Your task to perform on an android device: install app "Google Sheets" Image 0: 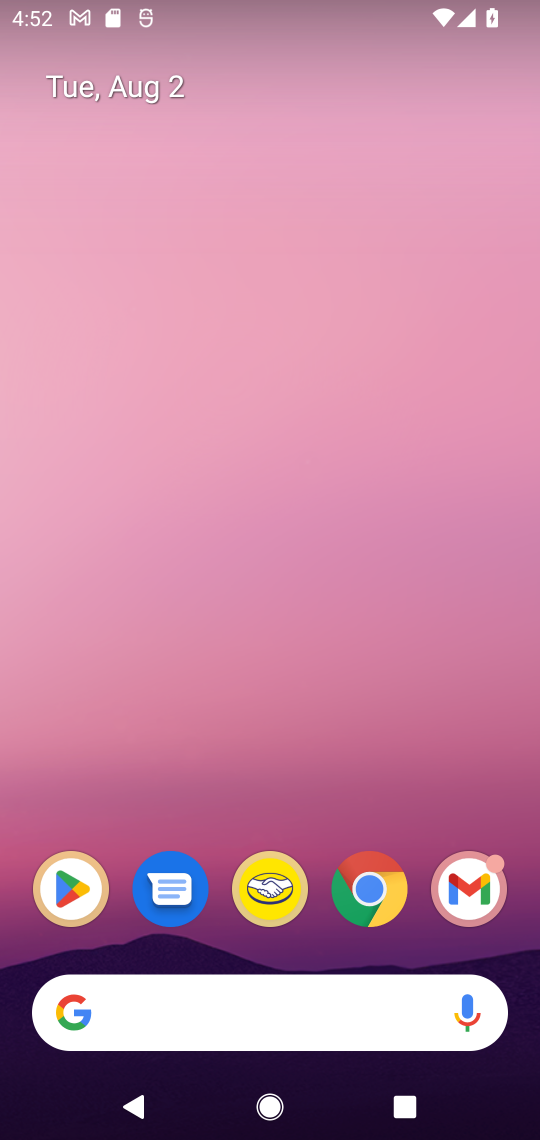
Step 0: press home button
Your task to perform on an android device: install app "Google Sheets" Image 1: 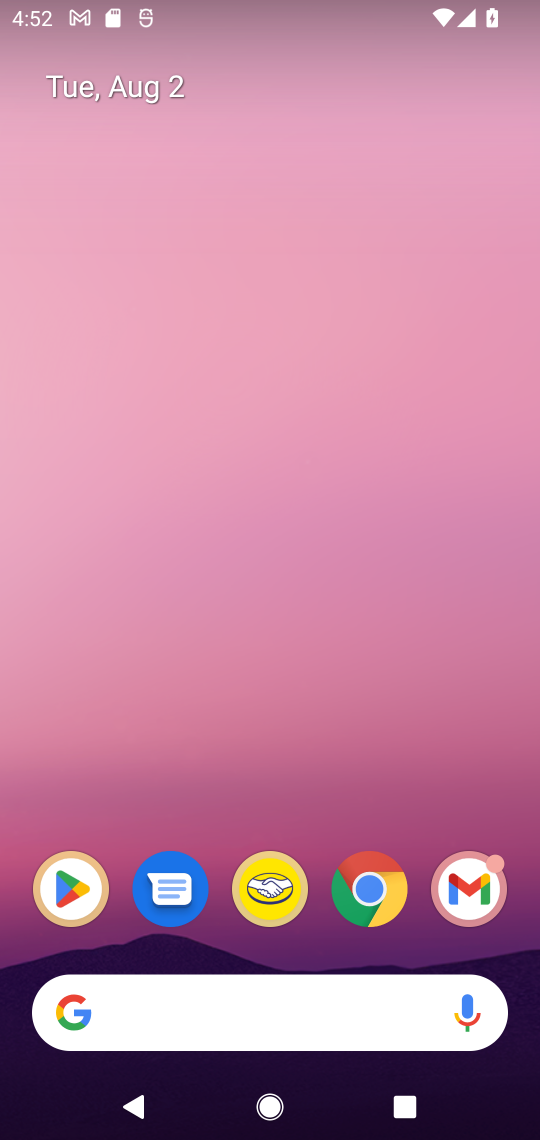
Step 1: drag from (395, 789) to (404, 125)
Your task to perform on an android device: install app "Google Sheets" Image 2: 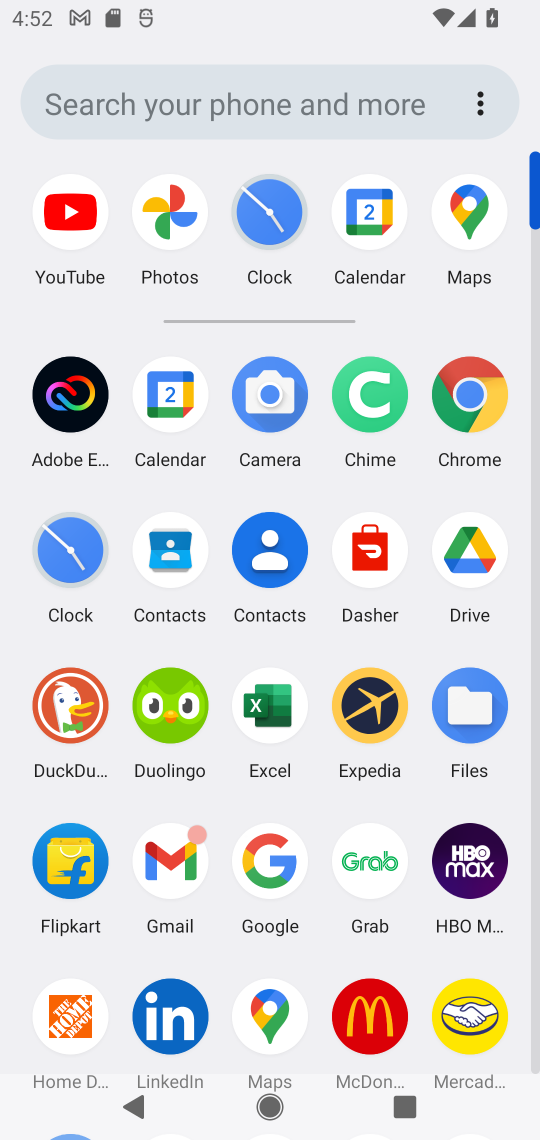
Step 2: drag from (519, 950) to (509, 424)
Your task to perform on an android device: install app "Google Sheets" Image 3: 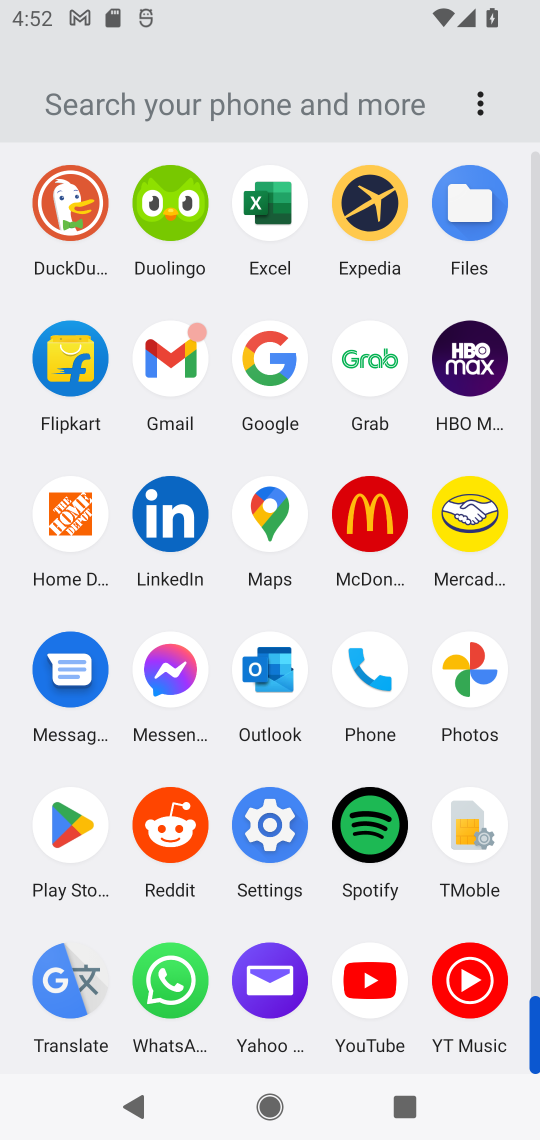
Step 3: click (79, 837)
Your task to perform on an android device: install app "Google Sheets" Image 4: 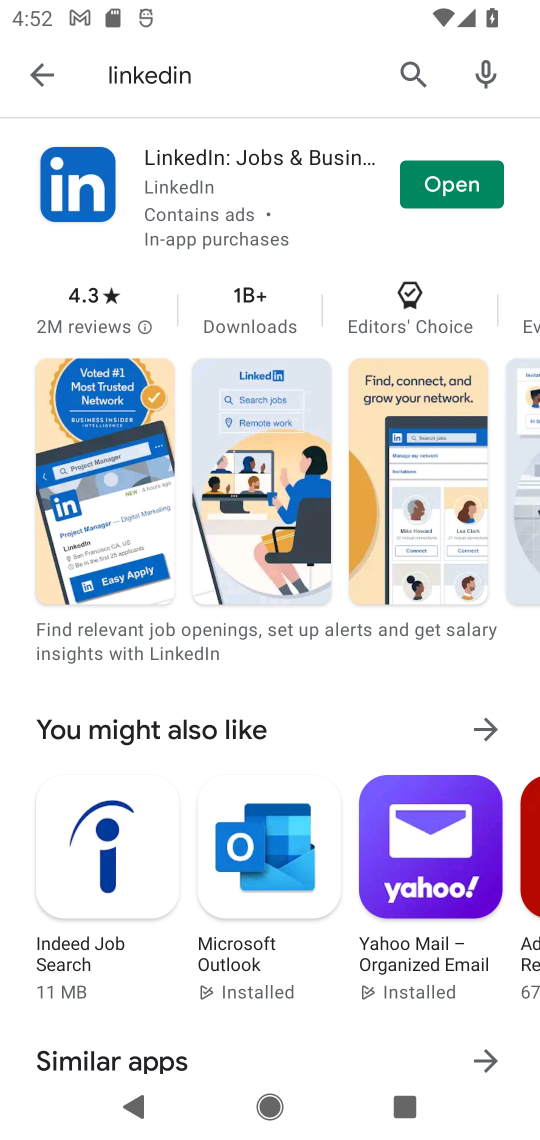
Step 4: click (403, 67)
Your task to perform on an android device: install app "Google Sheets" Image 5: 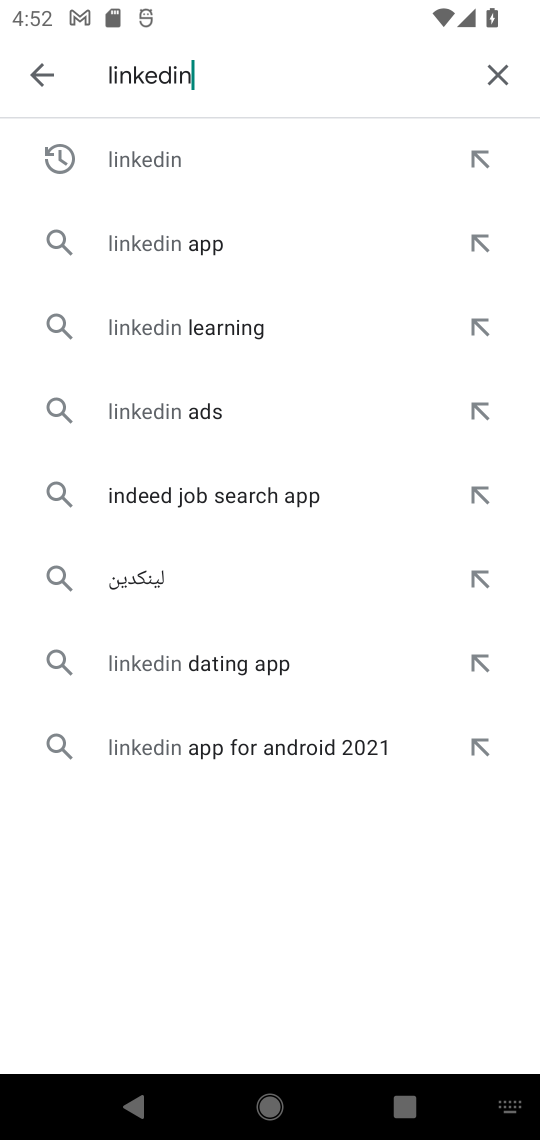
Step 5: click (502, 75)
Your task to perform on an android device: install app "Google Sheets" Image 6: 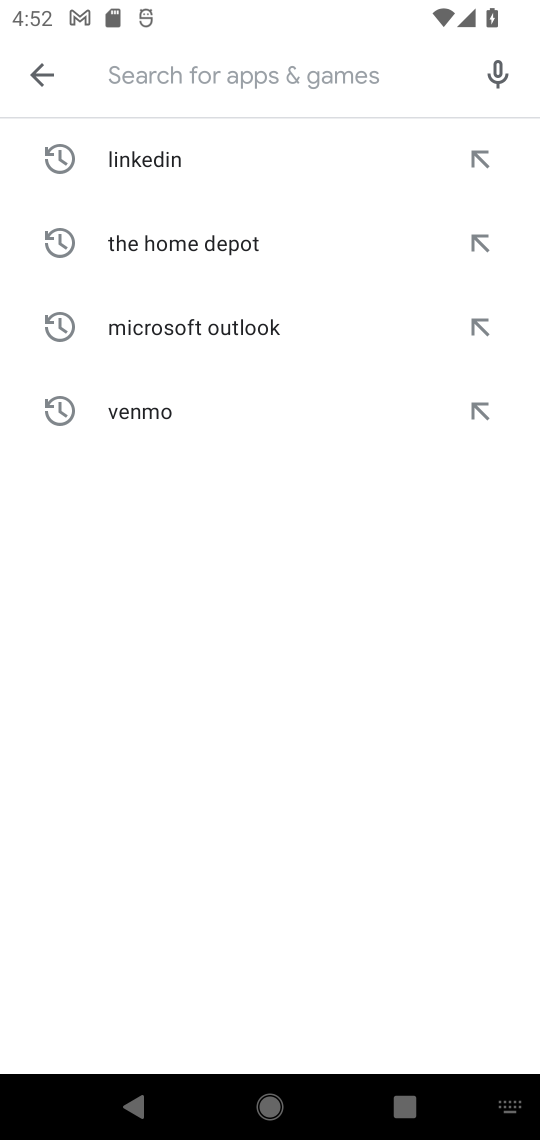
Step 6: type "google sheets"
Your task to perform on an android device: install app "Google Sheets" Image 7: 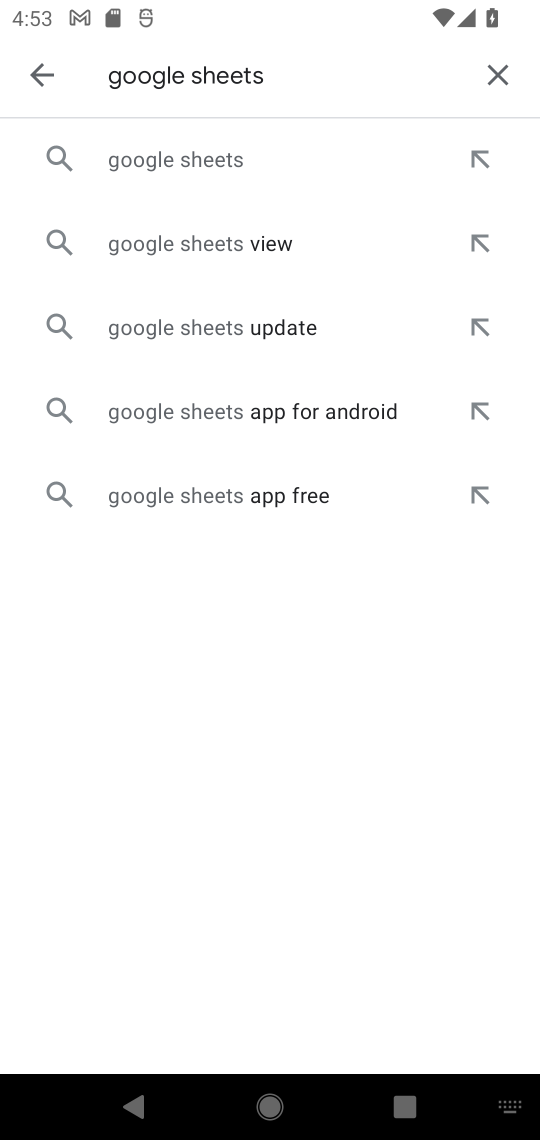
Step 7: click (250, 163)
Your task to perform on an android device: install app "Google Sheets" Image 8: 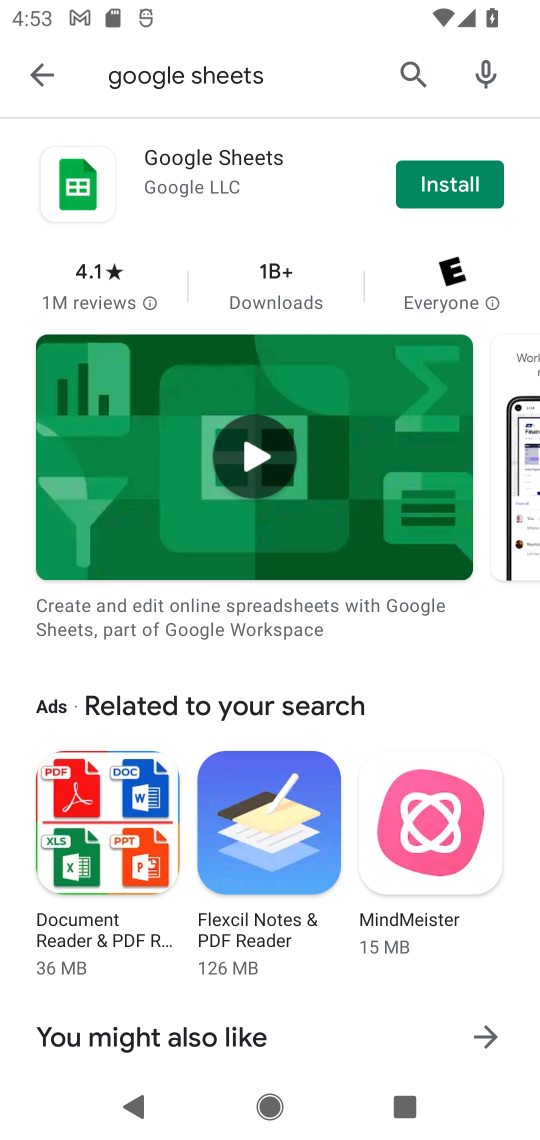
Step 8: click (461, 182)
Your task to perform on an android device: install app "Google Sheets" Image 9: 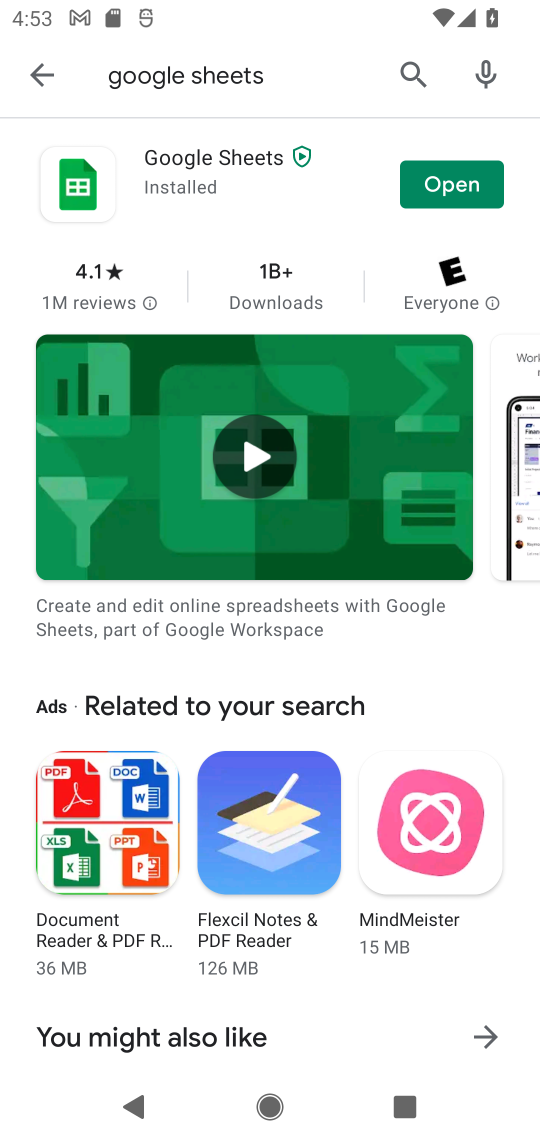
Step 9: task complete